Your task to perform on an android device: Open location settings Image 0: 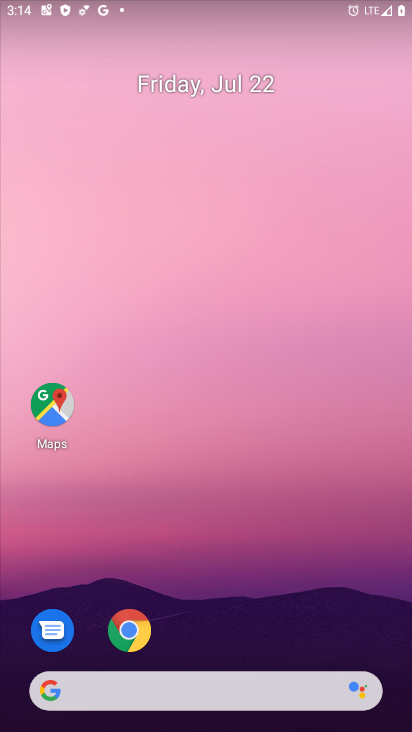
Step 0: press home button
Your task to perform on an android device: Open location settings Image 1: 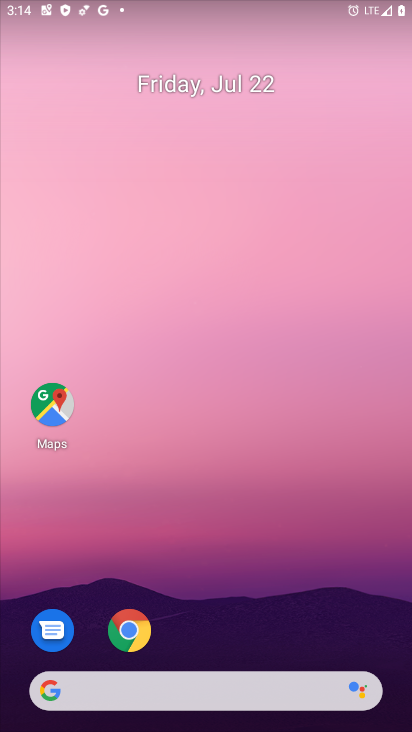
Step 1: drag from (237, 692) to (214, 127)
Your task to perform on an android device: Open location settings Image 2: 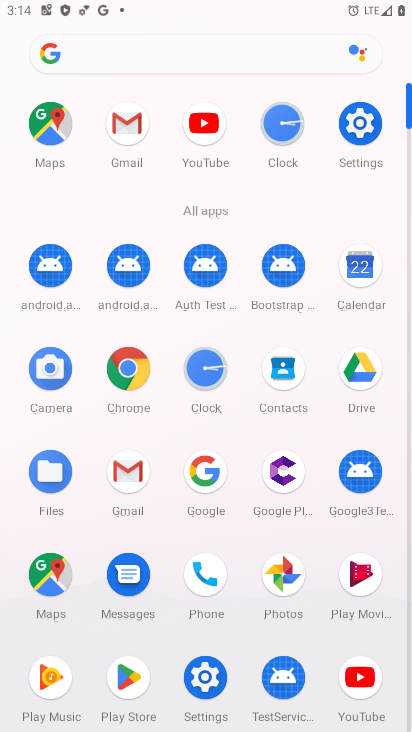
Step 2: click (366, 130)
Your task to perform on an android device: Open location settings Image 3: 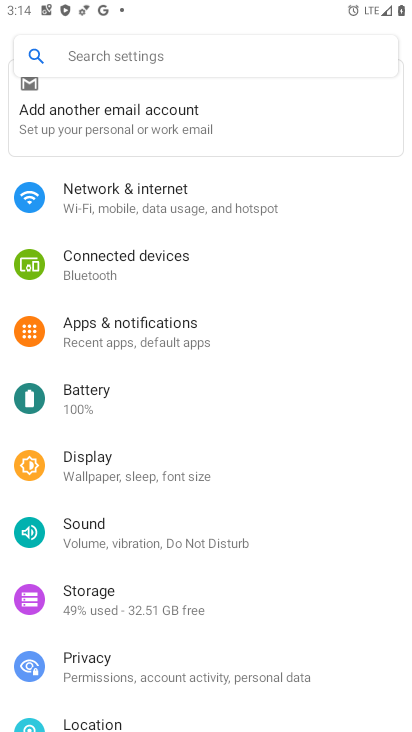
Step 3: click (93, 715)
Your task to perform on an android device: Open location settings Image 4: 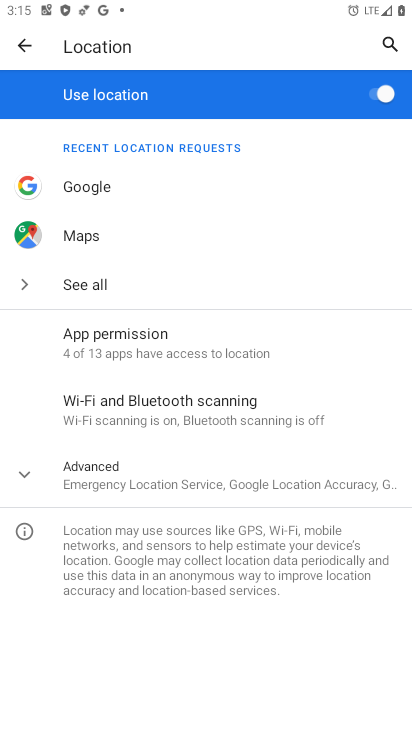
Step 4: task complete